Your task to perform on an android device: change the clock style Image 0: 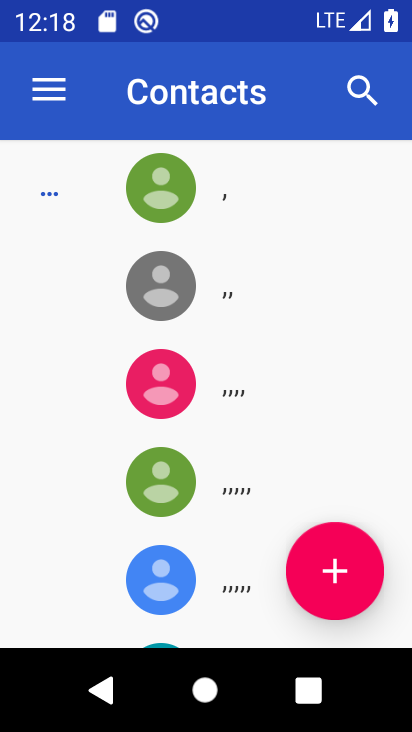
Step 0: press back button
Your task to perform on an android device: change the clock style Image 1: 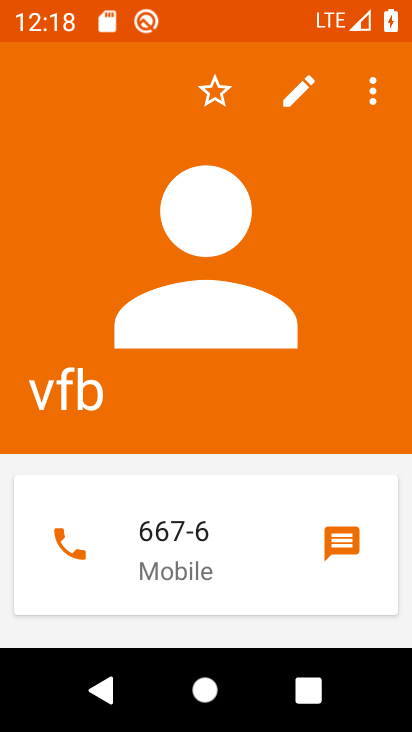
Step 1: press back button
Your task to perform on an android device: change the clock style Image 2: 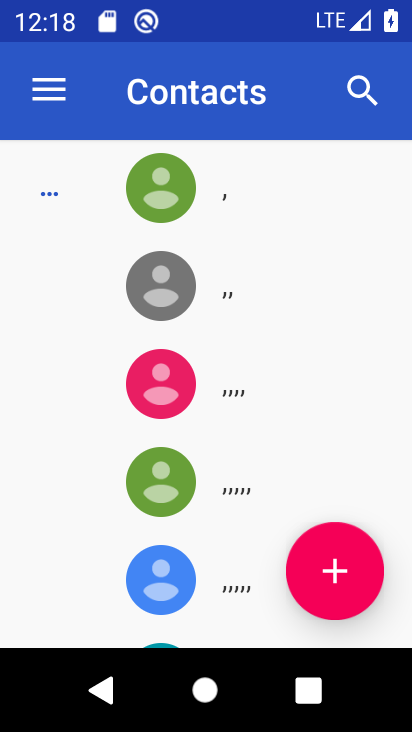
Step 2: press back button
Your task to perform on an android device: change the clock style Image 3: 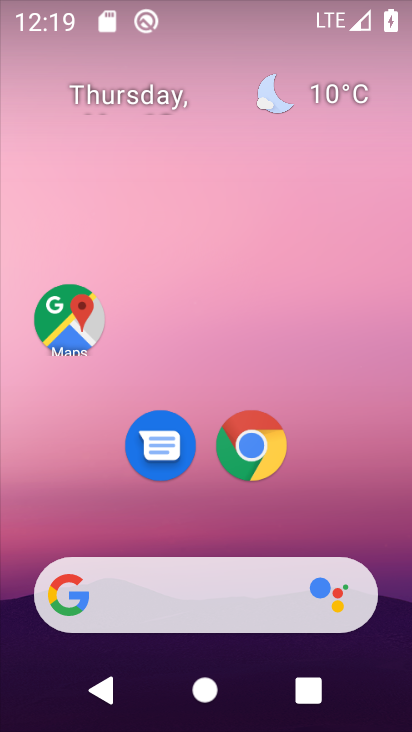
Step 3: drag from (195, 467) to (253, 103)
Your task to perform on an android device: change the clock style Image 4: 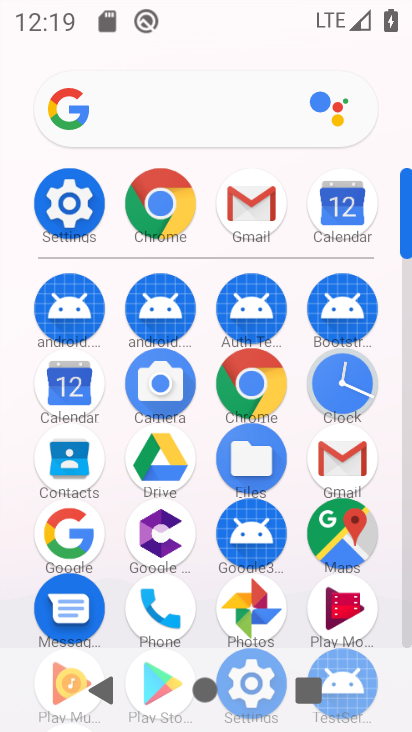
Step 4: click (346, 395)
Your task to perform on an android device: change the clock style Image 5: 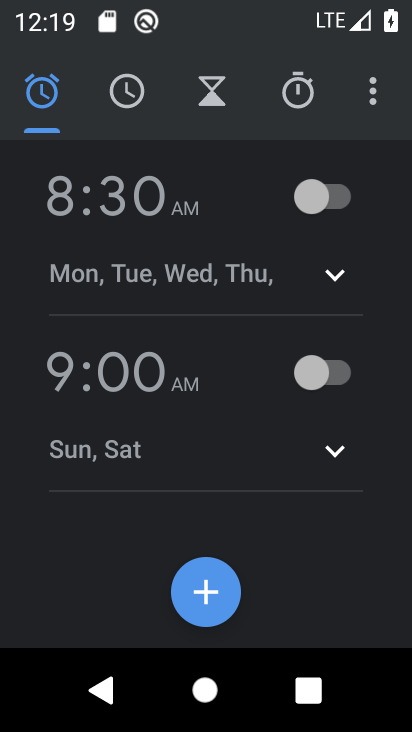
Step 5: click (371, 84)
Your task to perform on an android device: change the clock style Image 6: 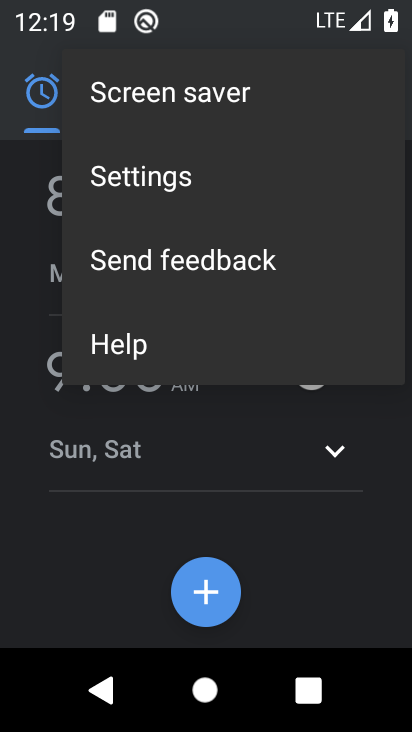
Step 6: click (148, 189)
Your task to perform on an android device: change the clock style Image 7: 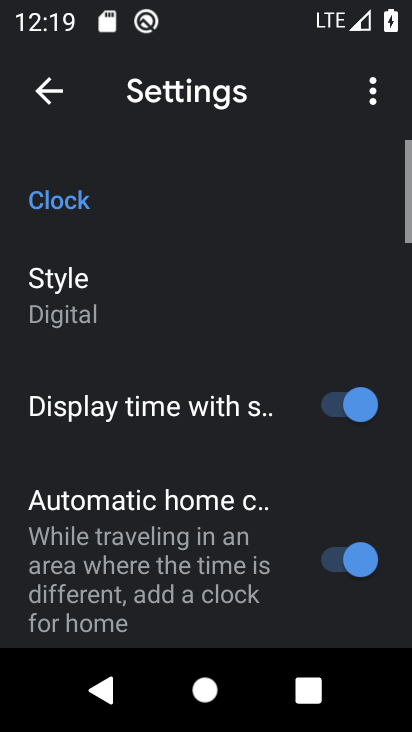
Step 7: click (63, 315)
Your task to perform on an android device: change the clock style Image 8: 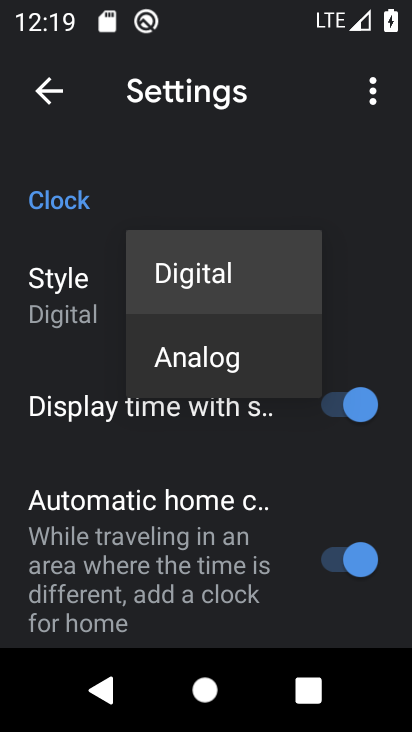
Step 8: click (203, 348)
Your task to perform on an android device: change the clock style Image 9: 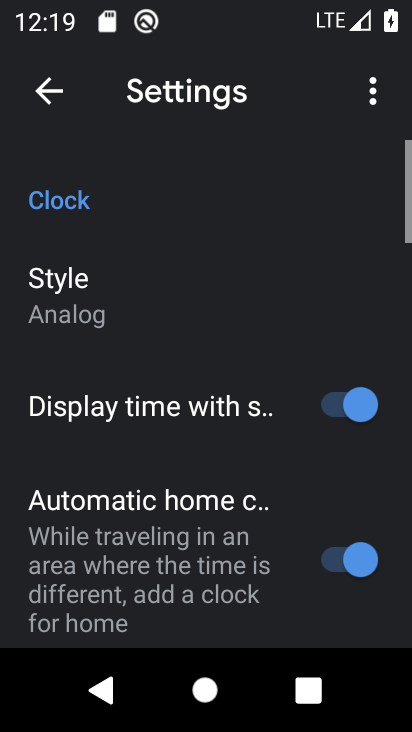
Step 9: task complete